Your task to perform on an android device: Open the phone app and click the voicemail tab. Image 0: 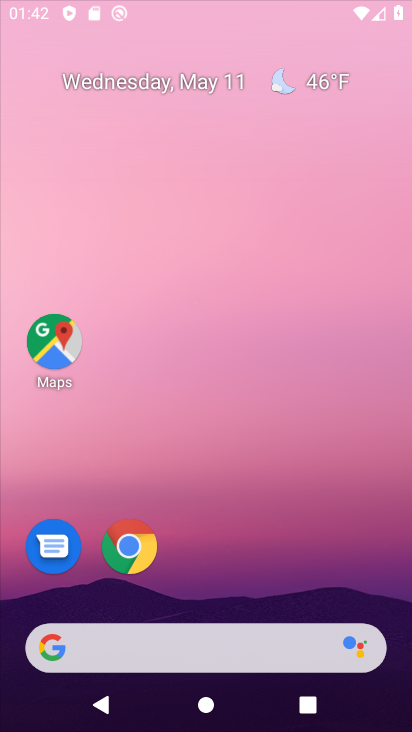
Step 0: drag from (217, 477) to (411, 19)
Your task to perform on an android device: Open the phone app and click the voicemail tab. Image 1: 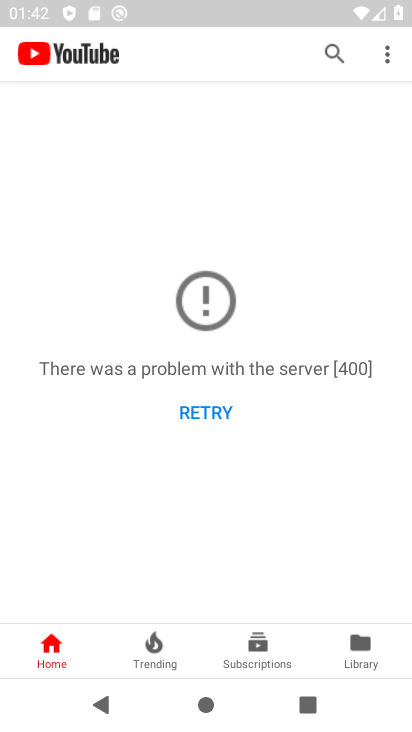
Step 1: press home button
Your task to perform on an android device: Open the phone app and click the voicemail tab. Image 2: 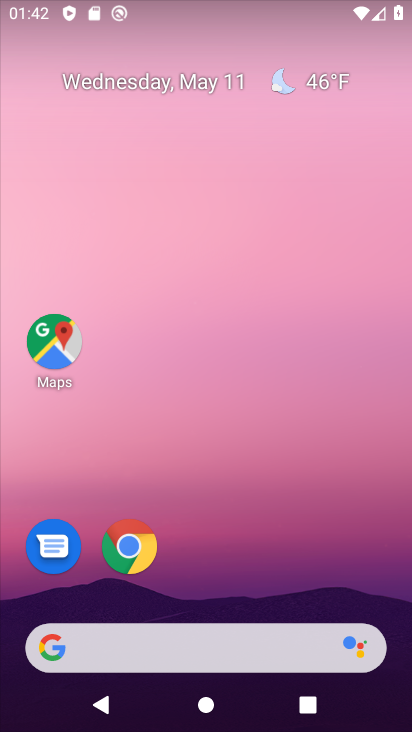
Step 2: drag from (240, 562) to (303, 116)
Your task to perform on an android device: Open the phone app and click the voicemail tab. Image 3: 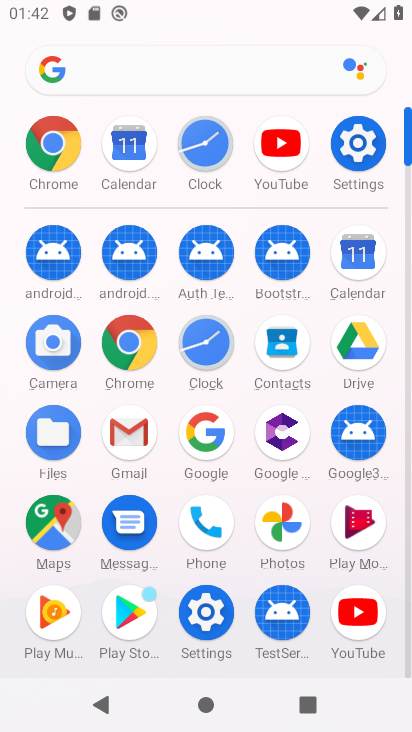
Step 3: click (185, 521)
Your task to perform on an android device: Open the phone app and click the voicemail tab. Image 4: 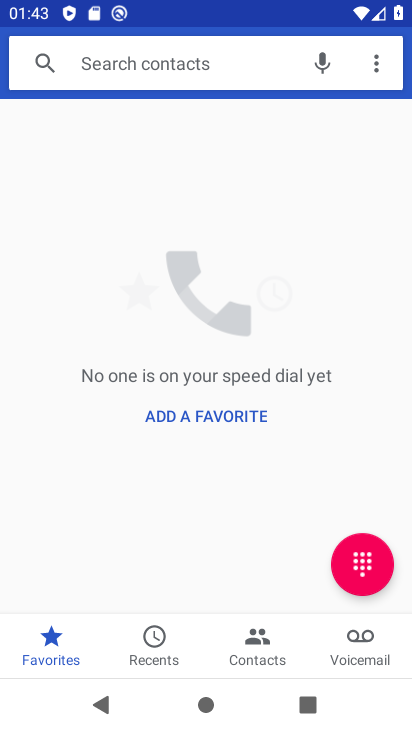
Step 4: click (371, 635)
Your task to perform on an android device: Open the phone app and click the voicemail tab. Image 5: 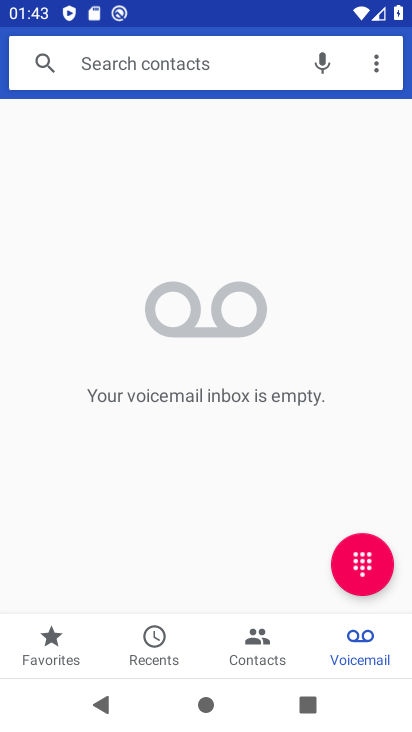
Step 5: task complete